Your task to perform on an android device: turn on airplane mode Image 0: 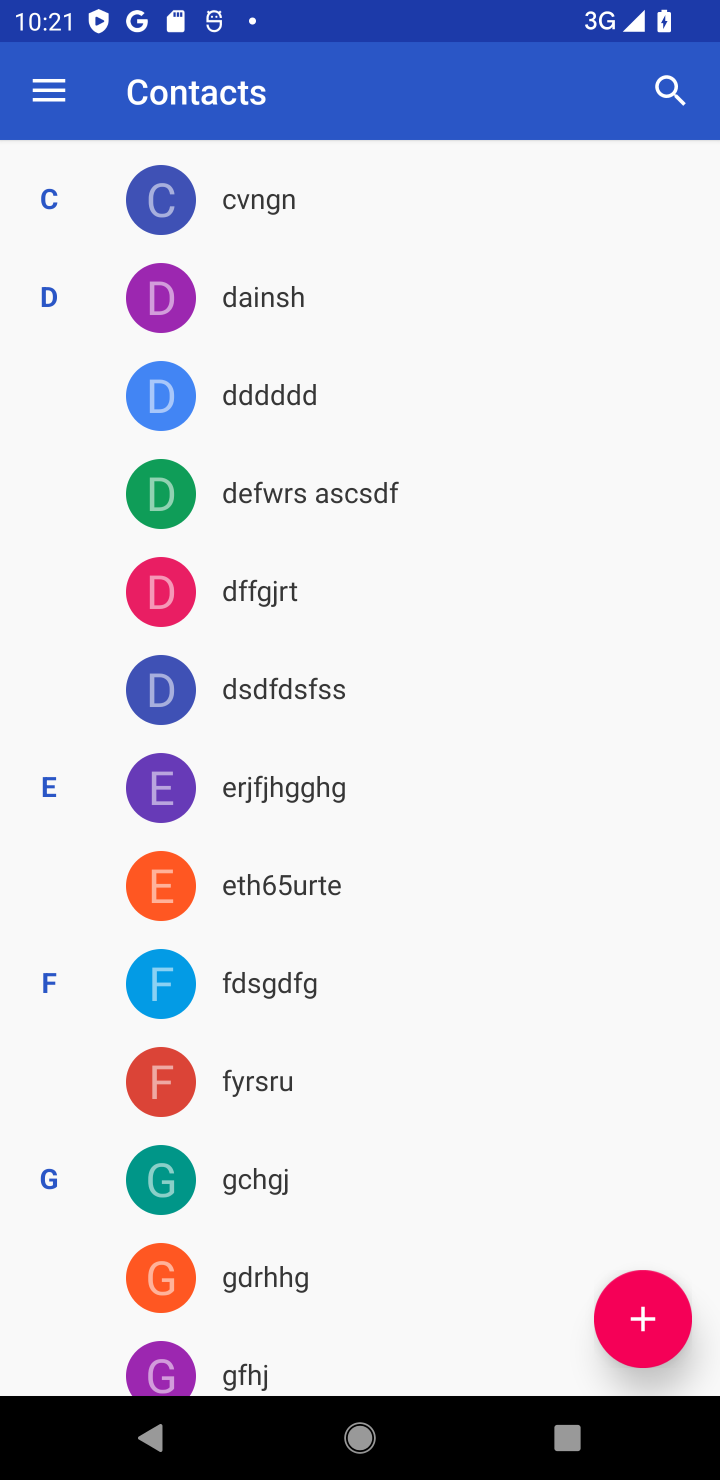
Step 0: press home button
Your task to perform on an android device: turn on airplane mode Image 1: 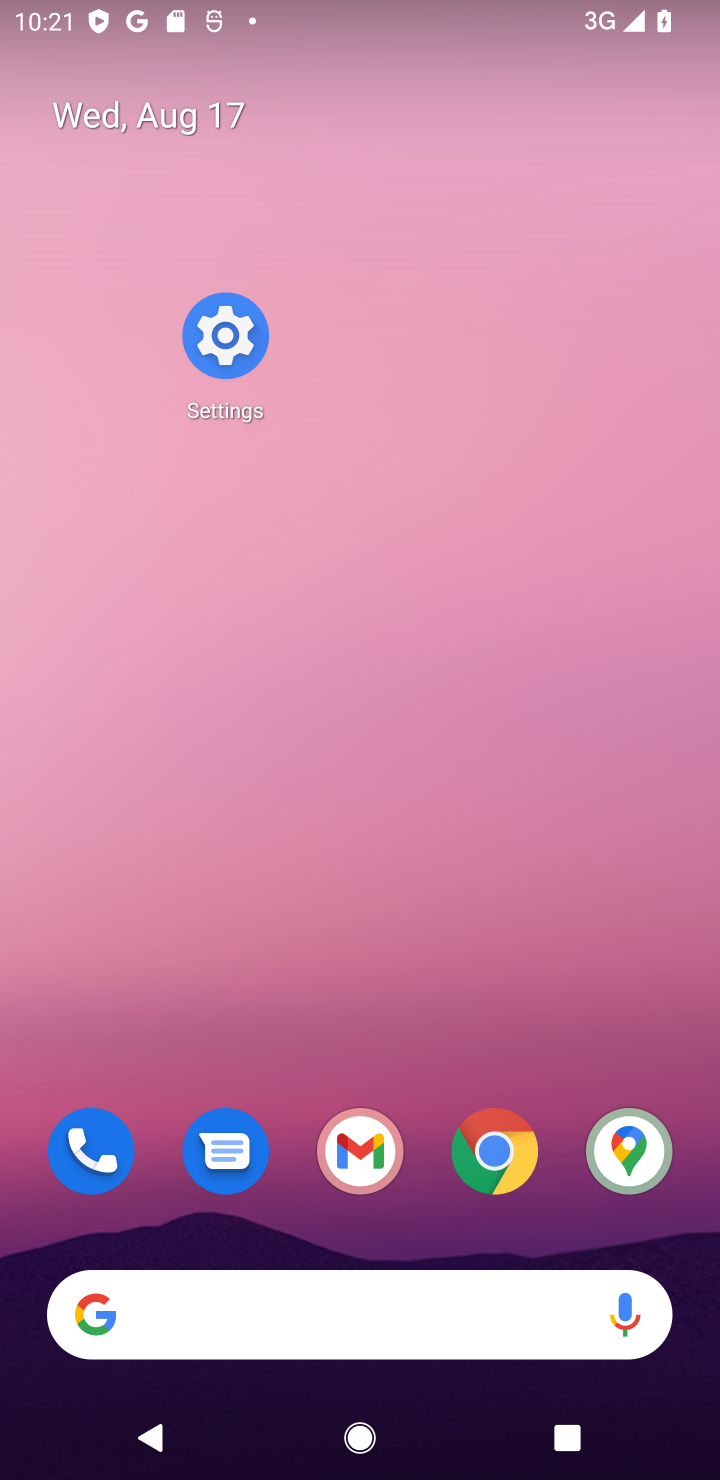
Step 1: drag from (353, 604) to (265, 93)
Your task to perform on an android device: turn on airplane mode Image 2: 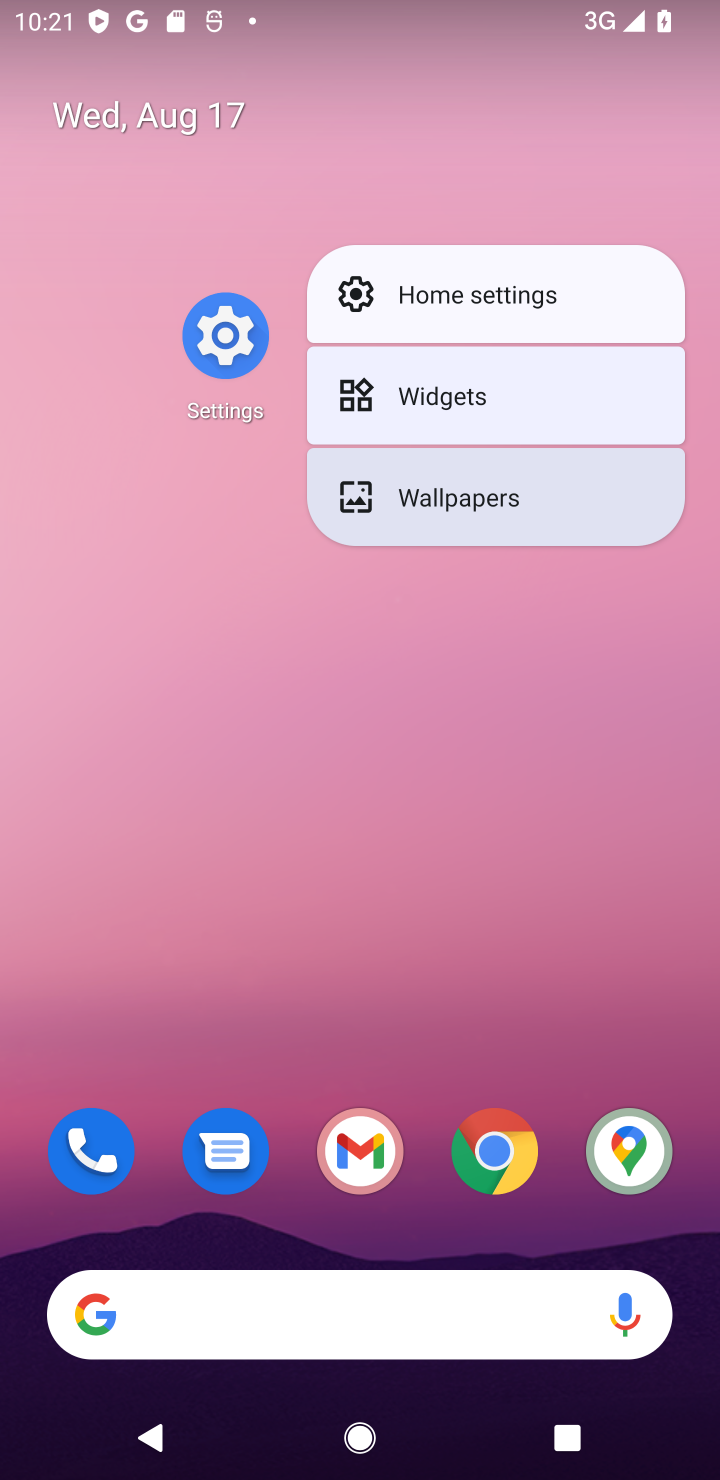
Step 2: drag from (315, 99) to (315, 6)
Your task to perform on an android device: turn on airplane mode Image 3: 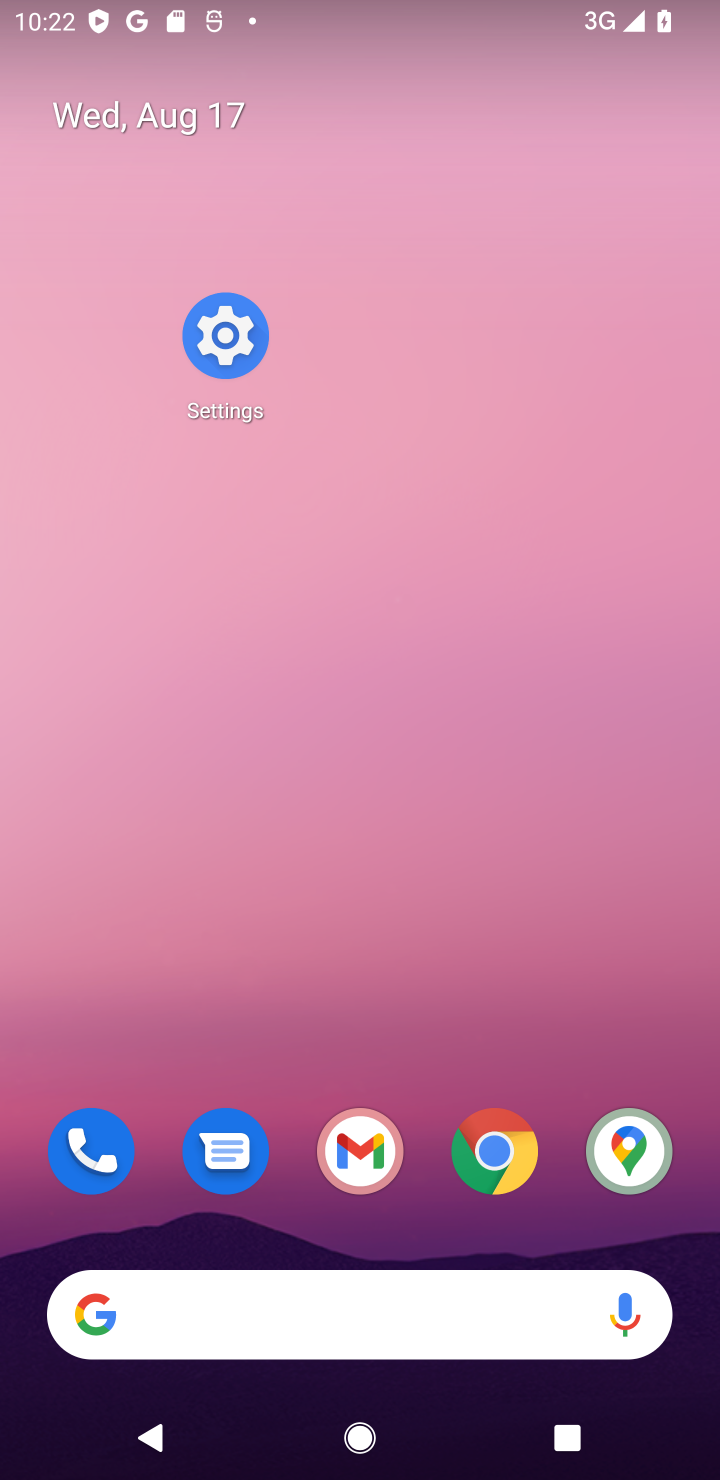
Step 3: drag from (330, 228) to (257, 70)
Your task to perform on an android device: turn on airplane mode Image 4: 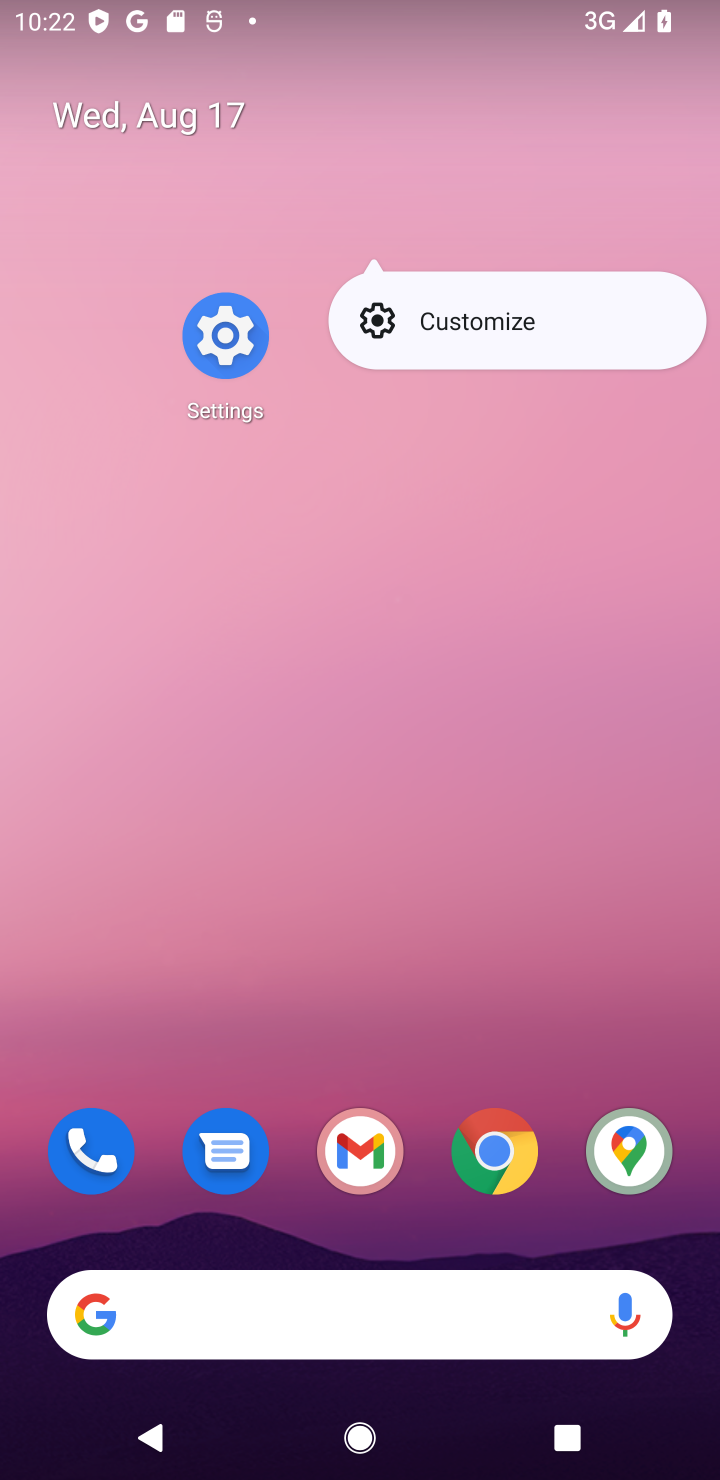
Step 4: click (321, 1194)
Your task to perform on an android device: turn on airplane mode Image 5: 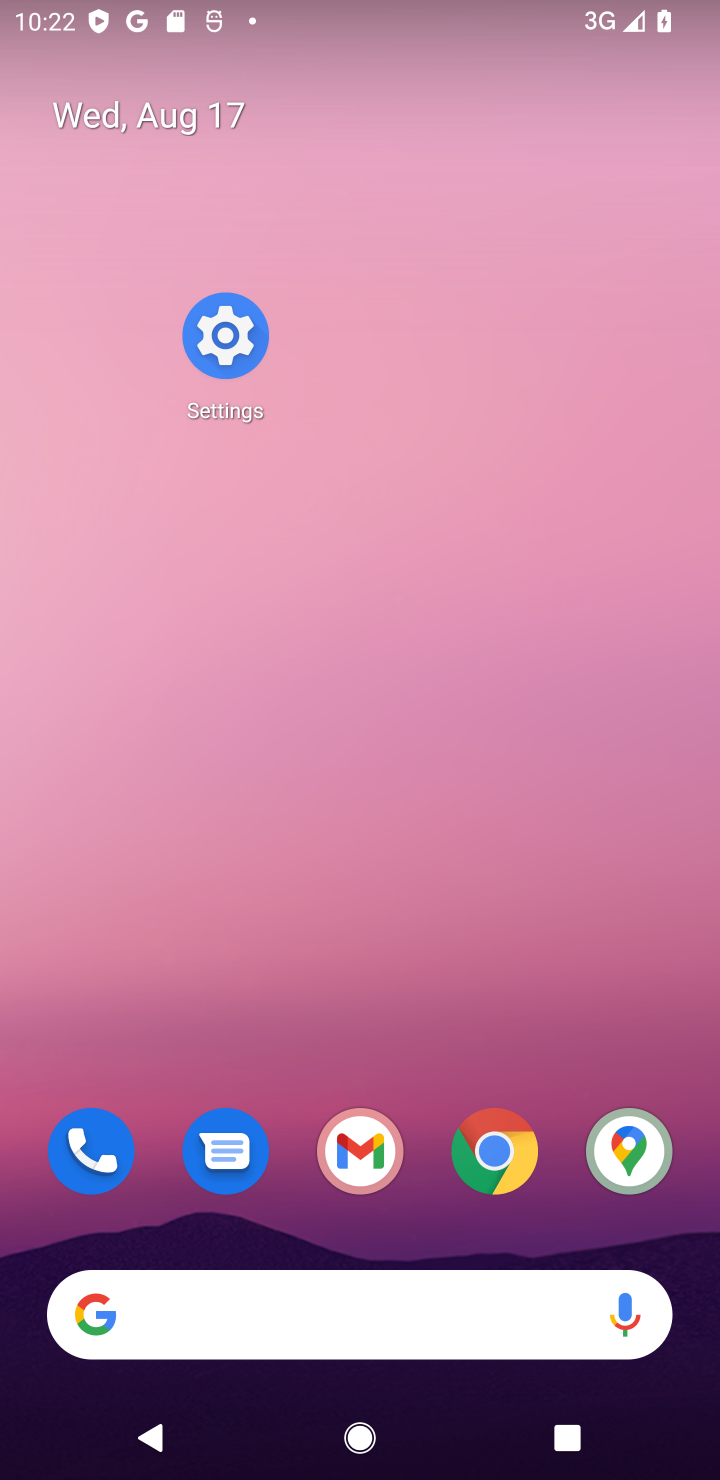
Step 5: drag from (432, 286) to (432, 113)
Your task to perform on an android device: turn on airplane mode Image 6: 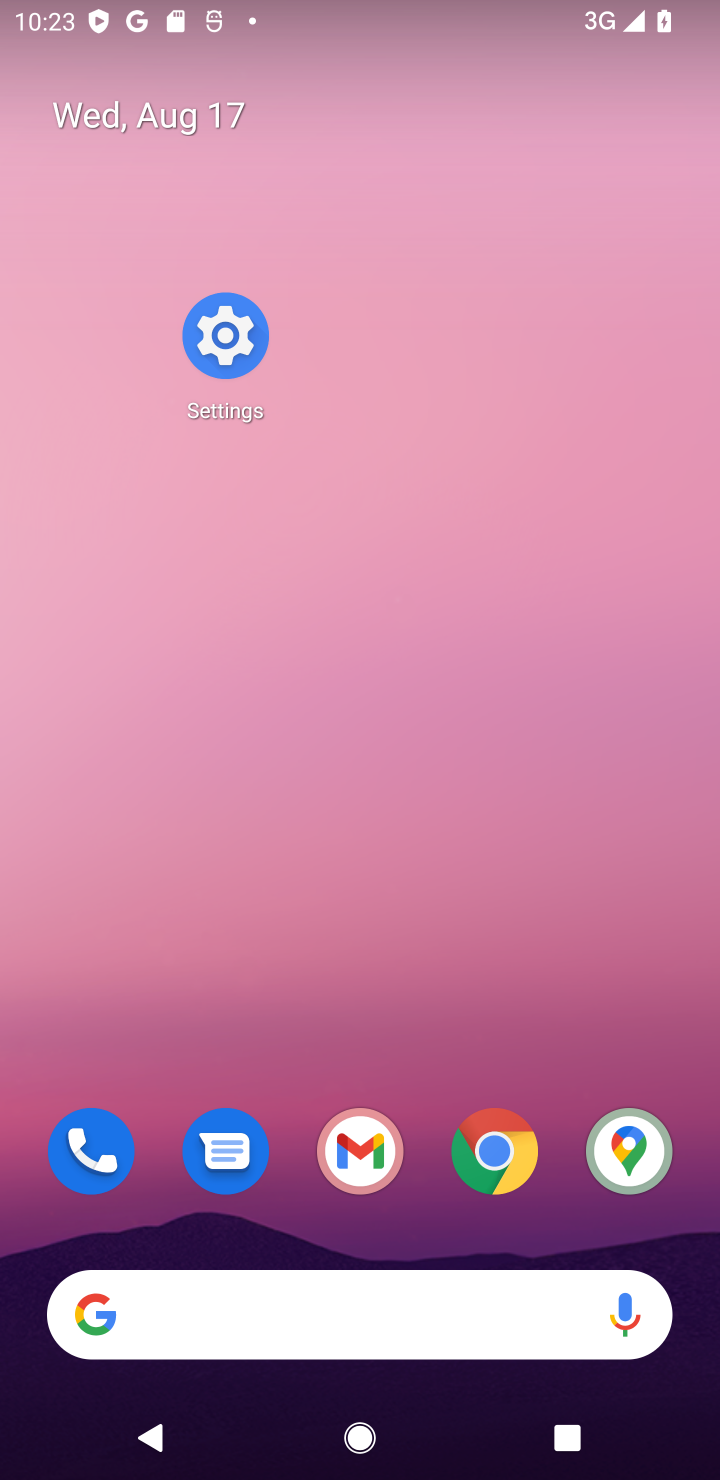
Step 6: click (215, 329)
Your task to perform on an android device: turn on airplane mode Image 7: 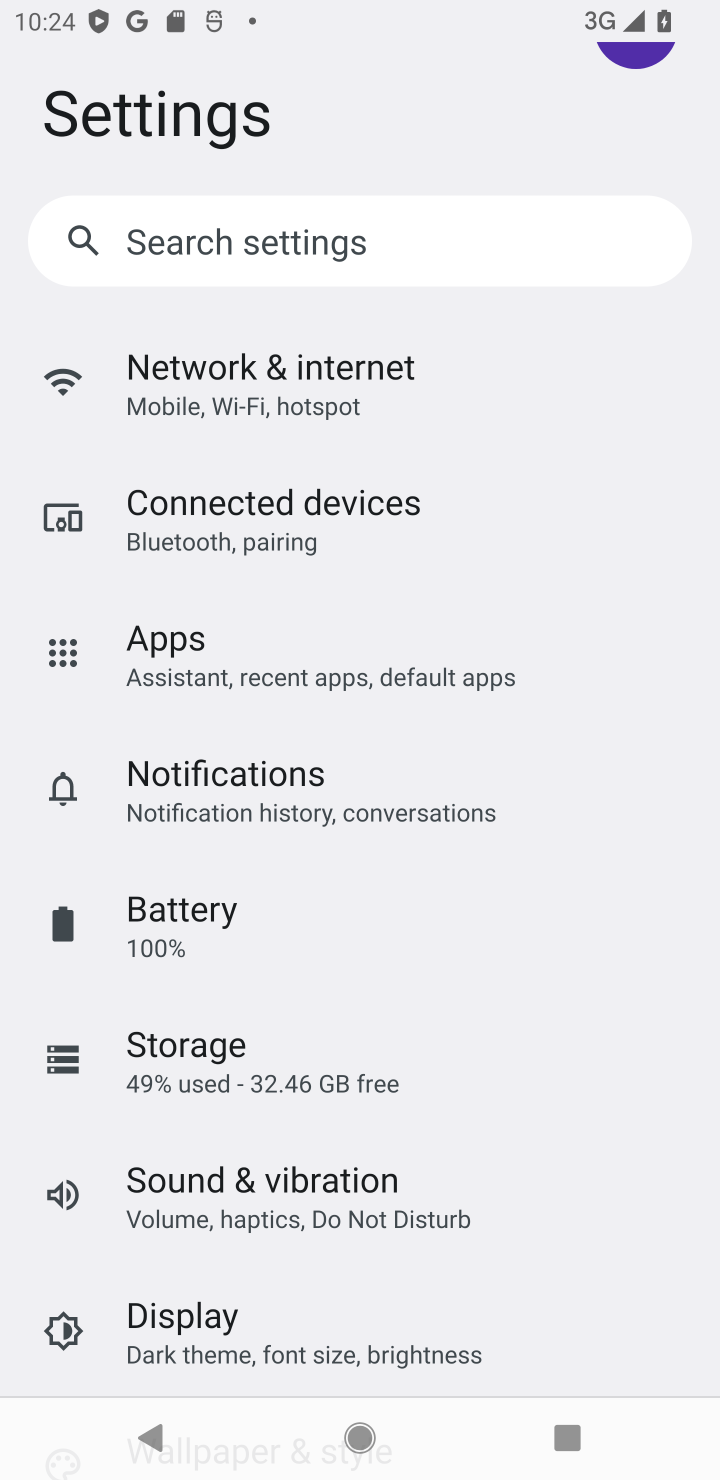
Step 7: click (292, 386)
Your task to perform on an android device: turn on airplane mode Image 8: 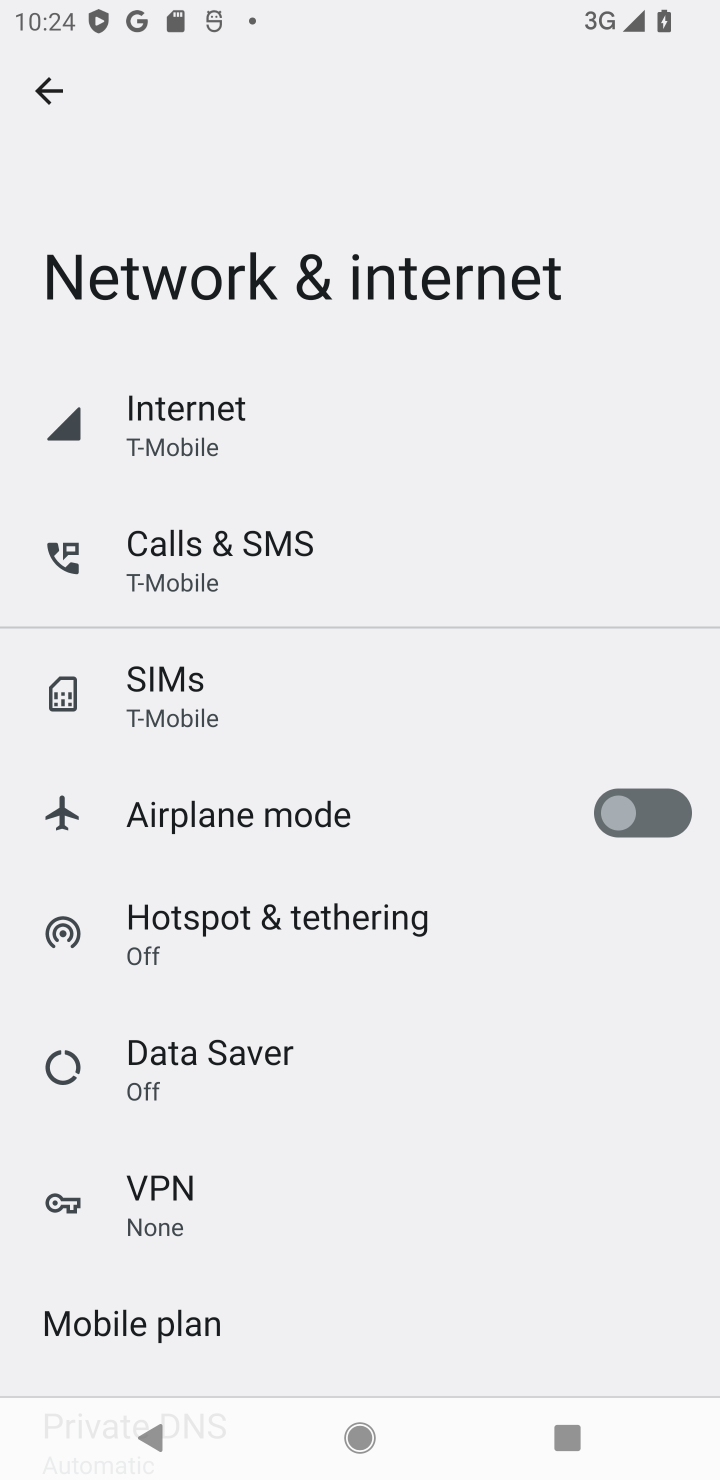
Step 8: click (653, 806)
Your task to perform on an android device: turn on airplane mode Image 9: 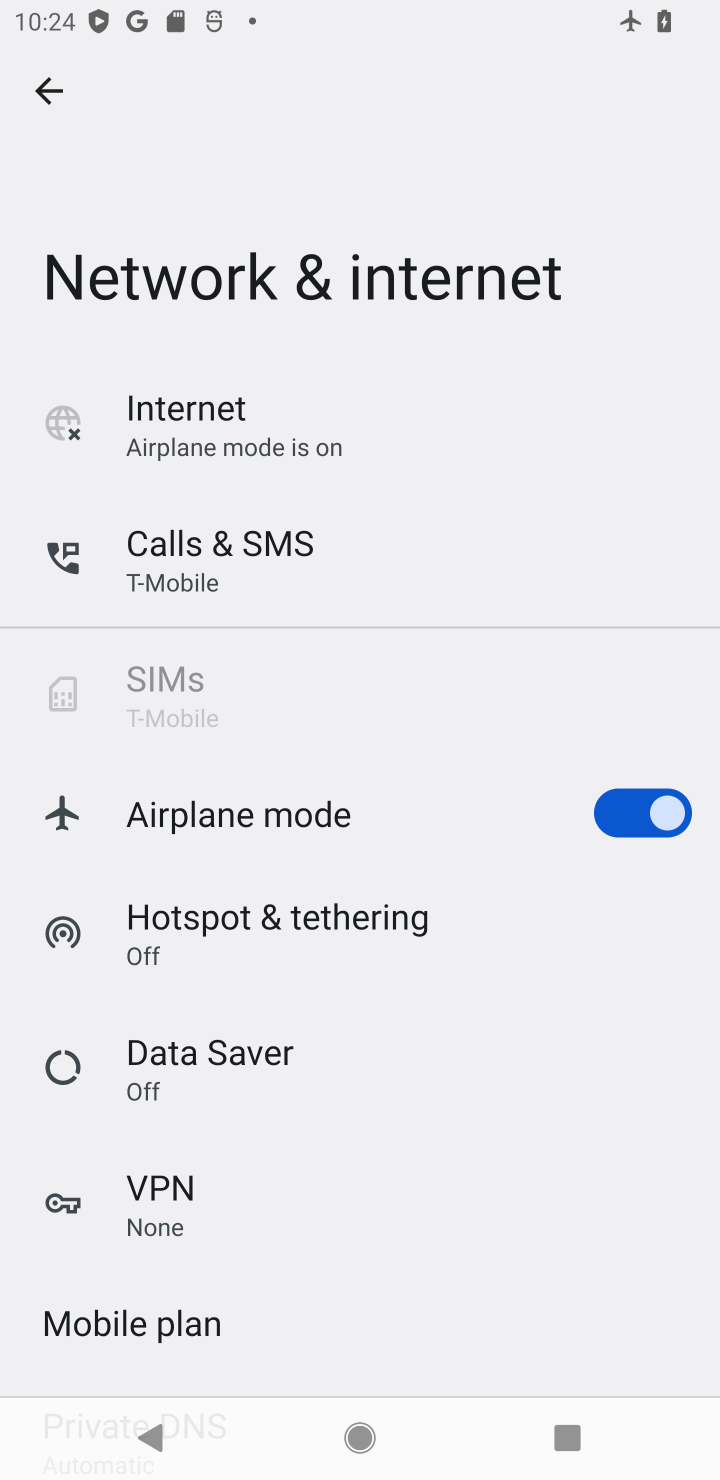
Step 9: task complete